Your task to perform on an android device: change the clock display to show seconds Image 0: 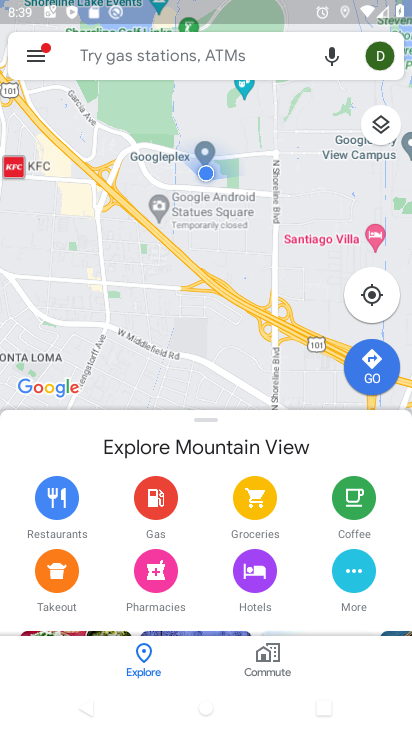
Step 0: press home button
Your task to perform on an android device: change the clock display to show seconds Image 1: 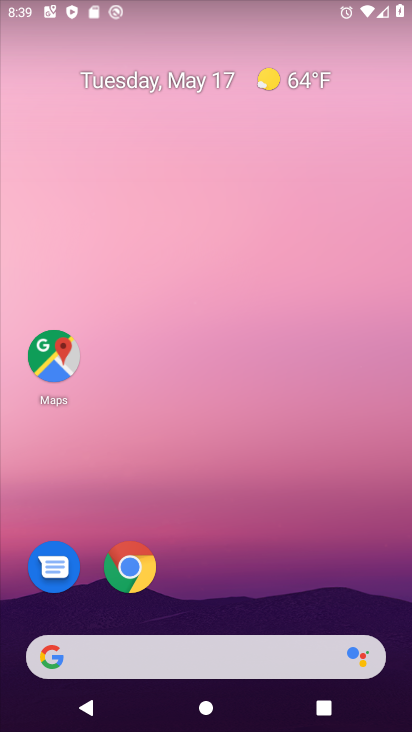
Step 1: drag from (410, 641) to (335, 56)
Your task to perform on an android device: change the clock display to show seconds Image 2: 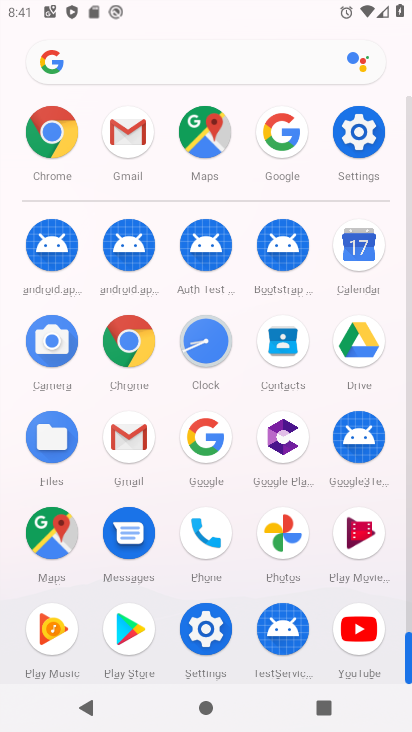
Step 2: click (226, 339)
Your task to perform on an android device: change the clock display to show seconds Image 3: 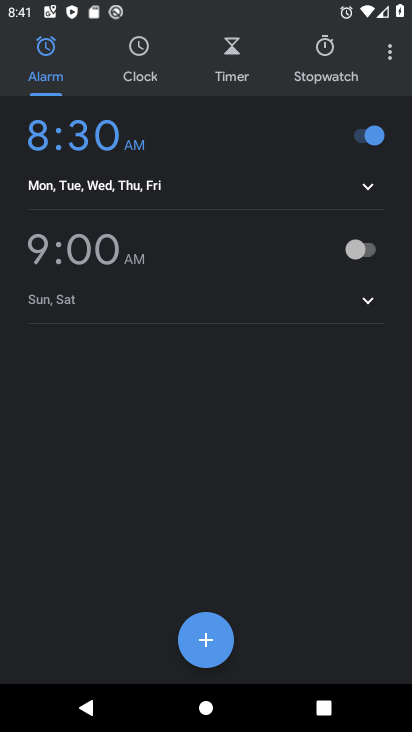
Step 3: click (378, 57)
Your task to perform on an android device: change the clock display to show seconds Image 4: 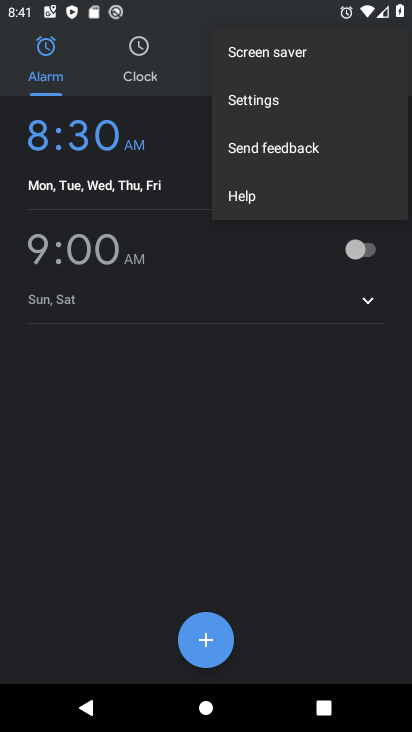
Step 4: click (323, 101)
Your task to perform on an android device: change the clock display to show seconds Image 5: 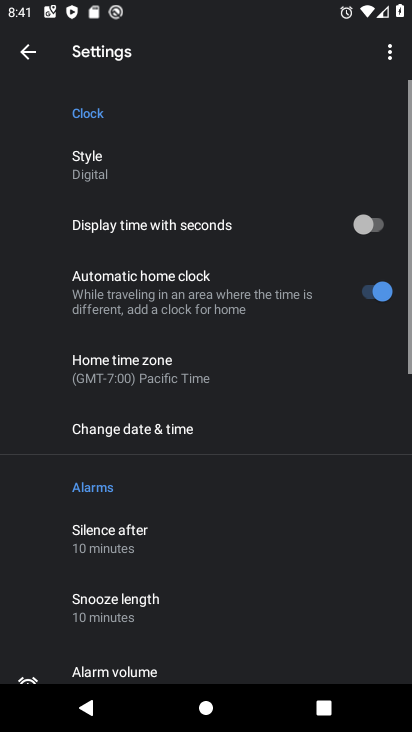
Step 5: click (308, 227)
Your task to perform on an android device: change the clock display to show seconds Image 6: 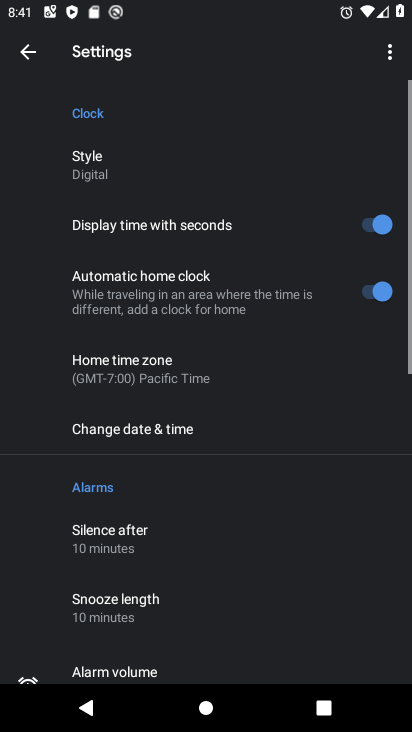
Step 6: task complete